Your task to perform on an android device: change text size in settings app Image 0: 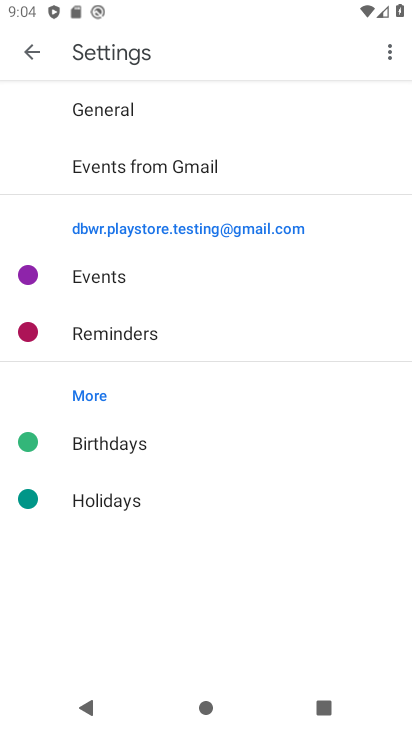
Step 0: press home button
Your task to perform on an android device: change text size in settings app Image 1: 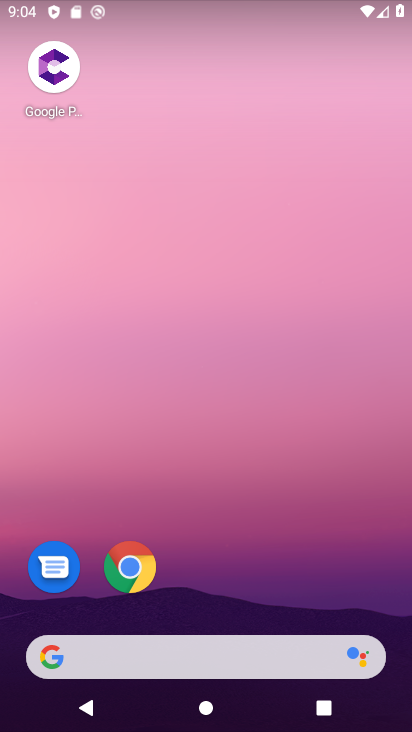
Step 1: drag from (202, 583) to (213, 209)
Your task to perform on an android device: change text size in settings app Image 2: 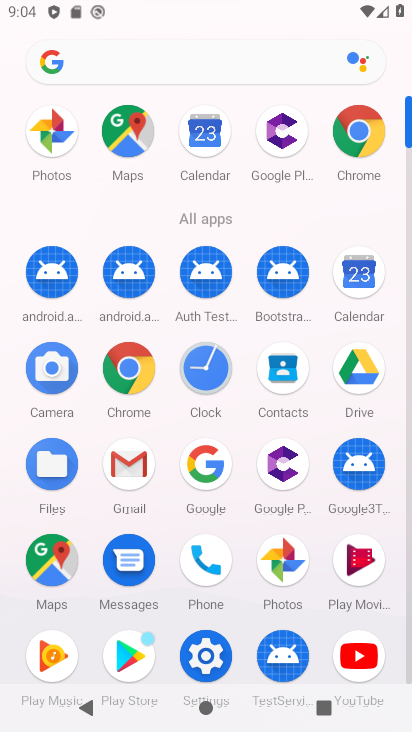
Step 2: click (211, 640)
Your task to perform on an android device: change text size in settings app Image 3: 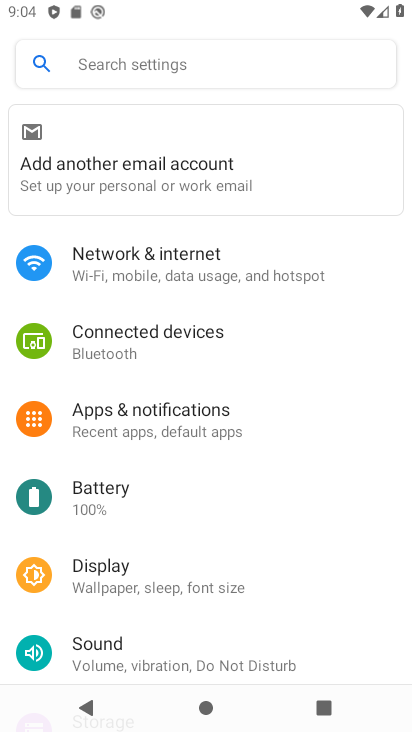
Step 3: drag from (195, 612) to (192, 457)
Your task to perform on an android device: change text size in settings app Image 4: 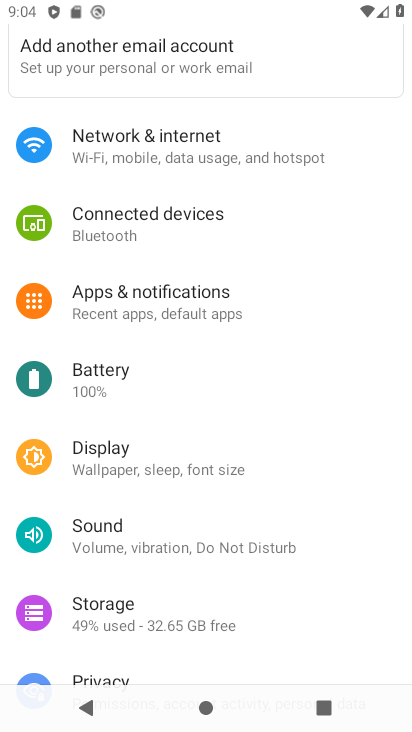
Step 4: click (187, 453)
Your task to perform on an android device: change text size in settings app Image 5: 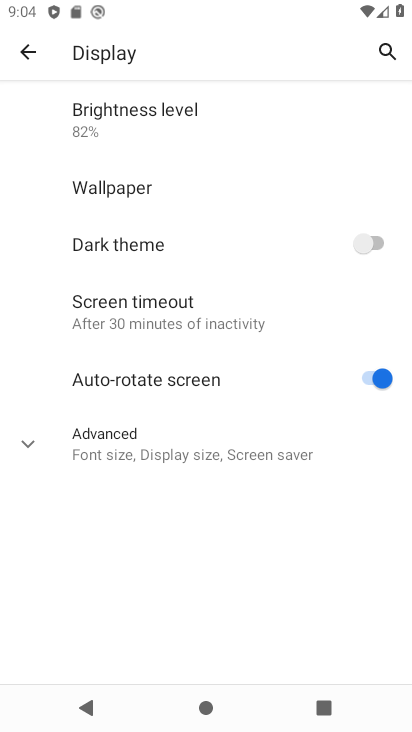
Step 5: click (154, 433)
Your task to perform on an android device: change text size in settings app Image 6: 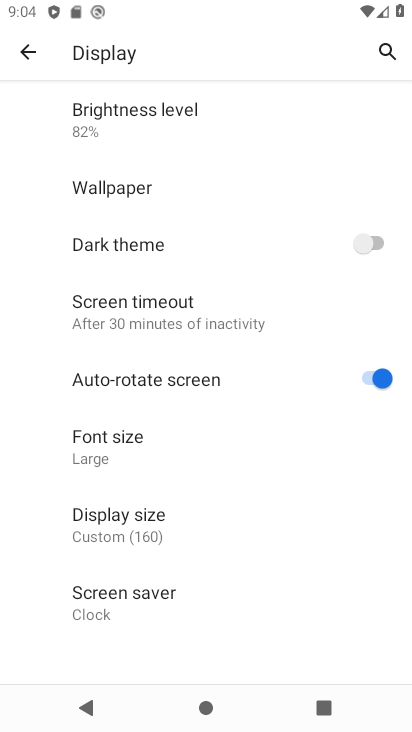
Step 6: click (148, 529)
Your task to perform on an android device: change text size in settings app Image 7: 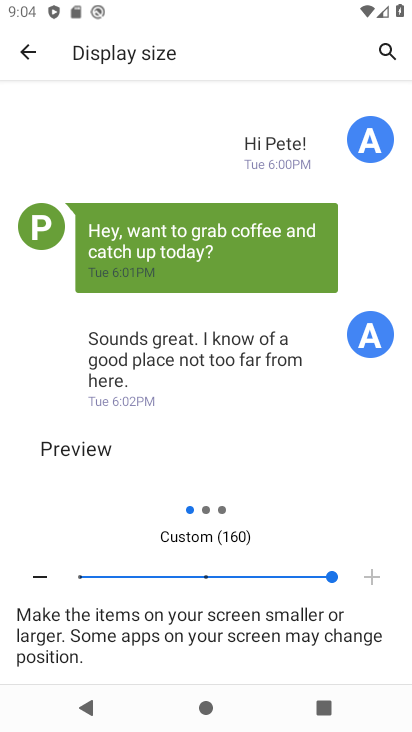
Step 7: click (82, 581)
Your task to perform on an android device: change text size in settings app Image 8: 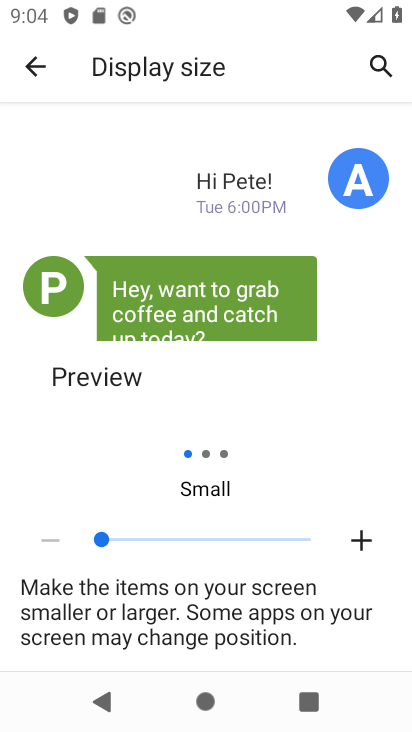
Step 8: click (24, 61)
Your task to perform on an android device: change text size in settings app Image 9: 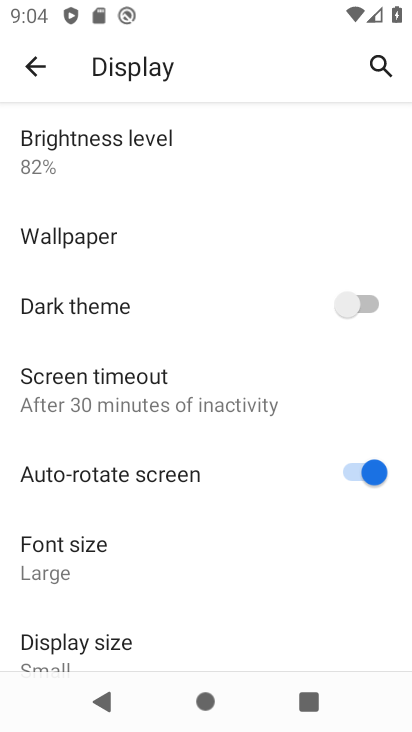
Step 9: click (98, 575)
Your task to perform on an android device: change text size in settings app Image 10: 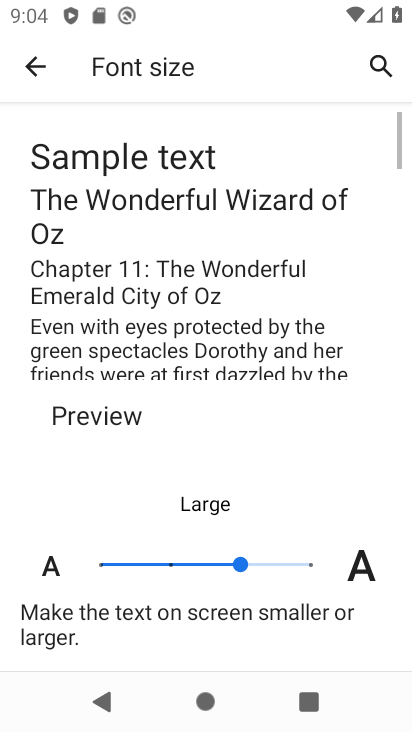
Step 10: click (106, 573)
Your task to perform on an android device: change text size in settings app Image 11: 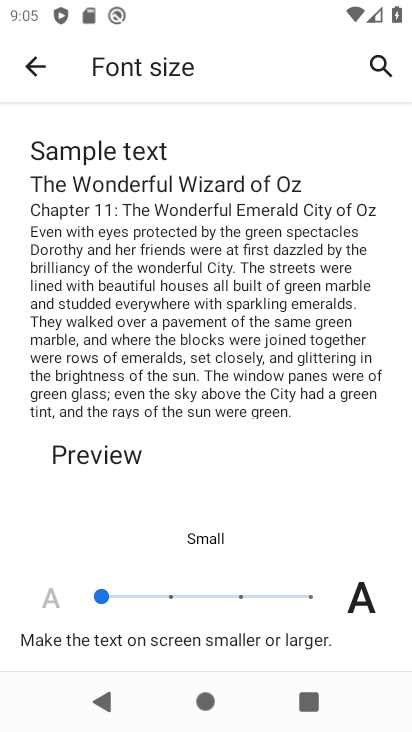
Step 11: task complete